Your task to perform on an android device: turn on sleep mode Image 0: 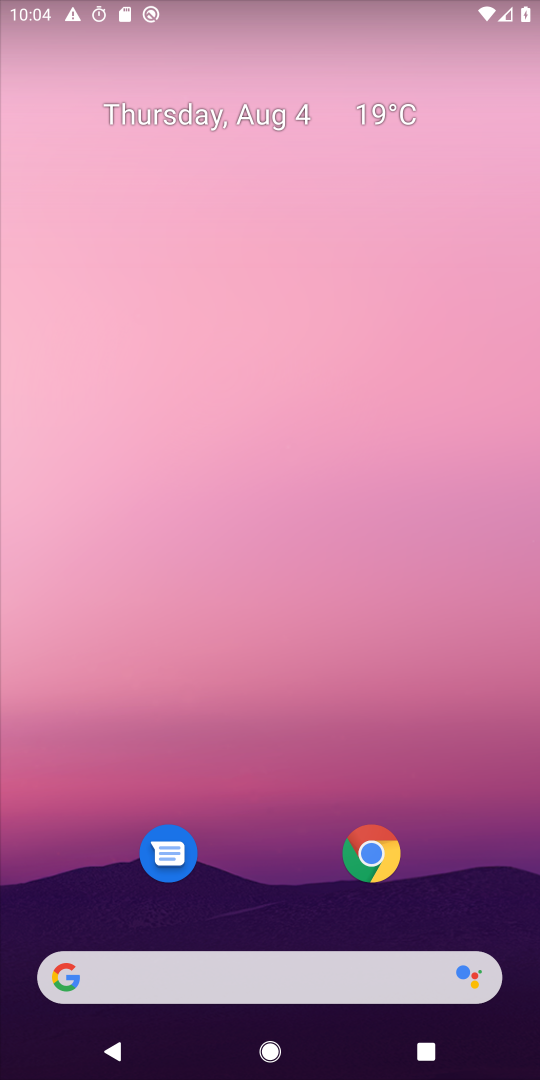
Step 0: drag from (219, 789) to (283, 100)
Your task to perform on an android device: turn on sleep mode Image 1: 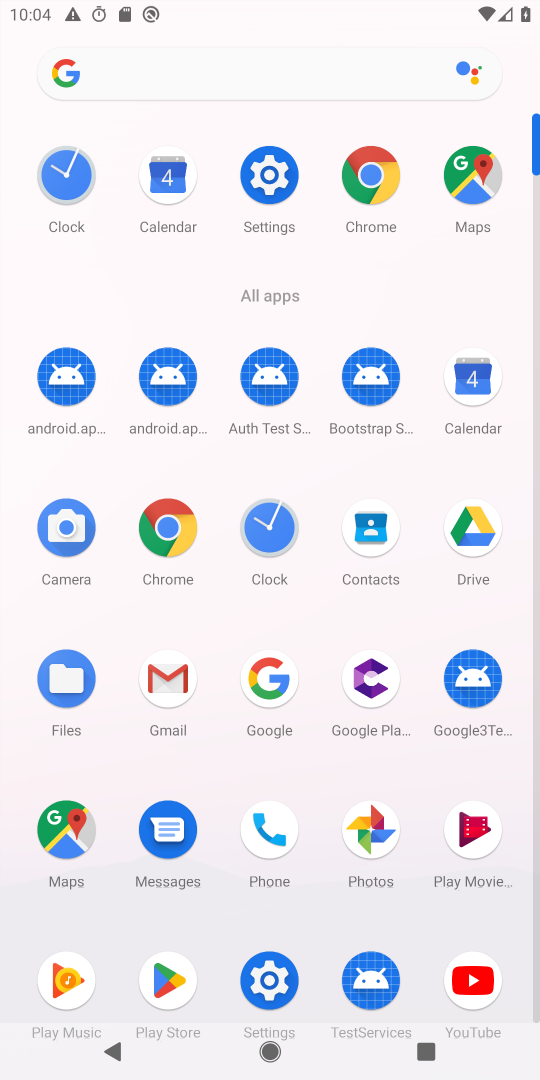
Step 1: click (284, 977)
Your task to perform on an android device: turn on sleep mode Image 2: 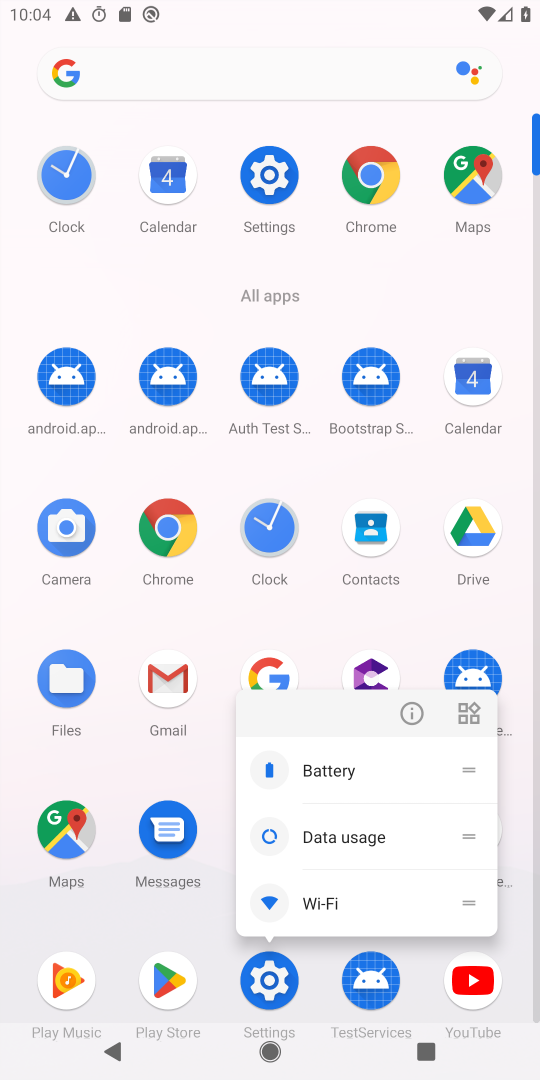
Step 2: click (281, 979)
Your task to perform on an android device: turn on sleep mode Image 3: 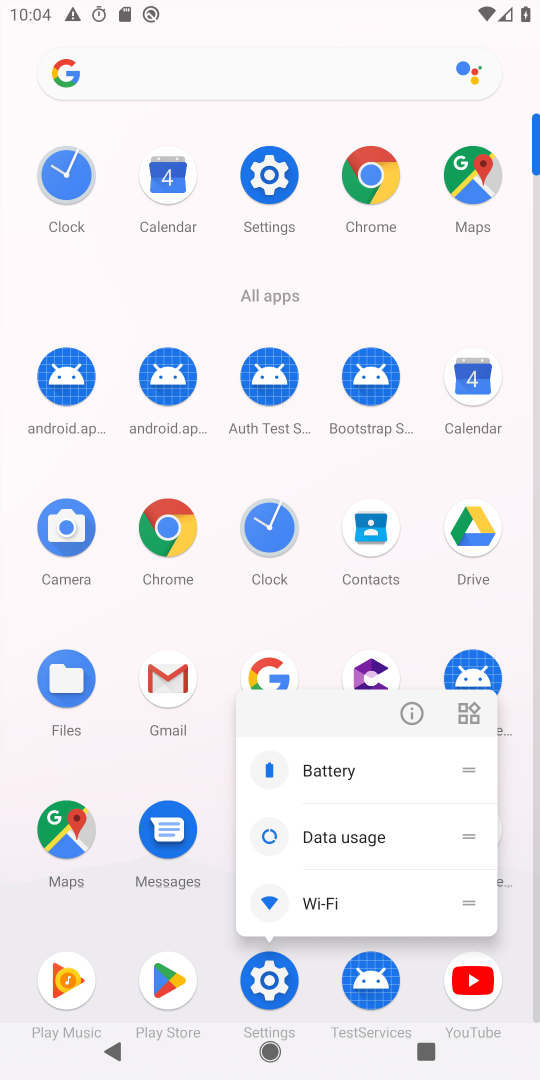
Step 3: click (237, 993)
Your task to perform on an android device: turn on sleep mode Image 4: 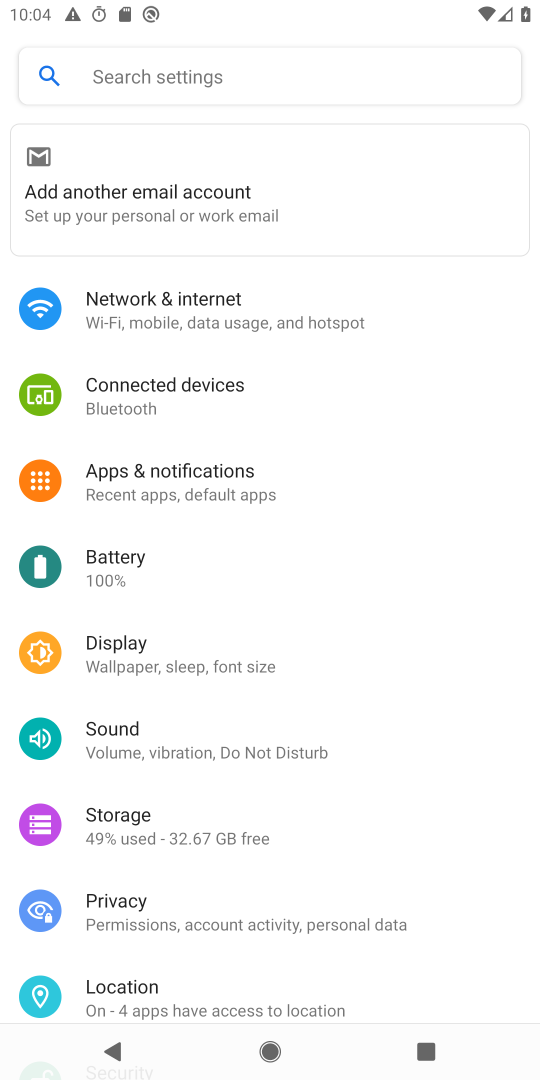
Step 4: click (256, 61)
Your task to perform on an android device: turn on sleep mode Image 5: 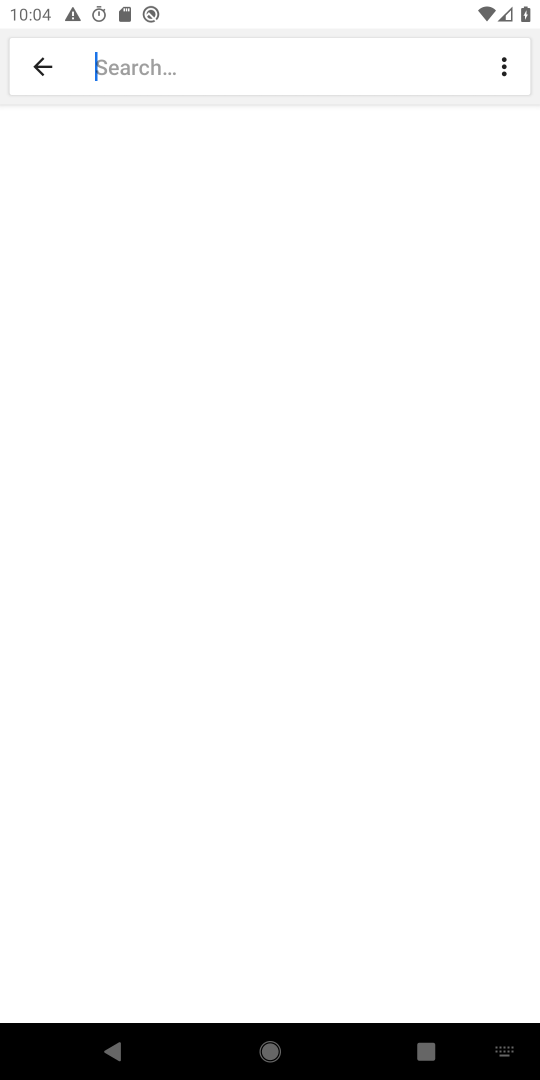
Step 5: type "sleep mode"
Your task to perform on an android device: turn on sleep mode Image 6: 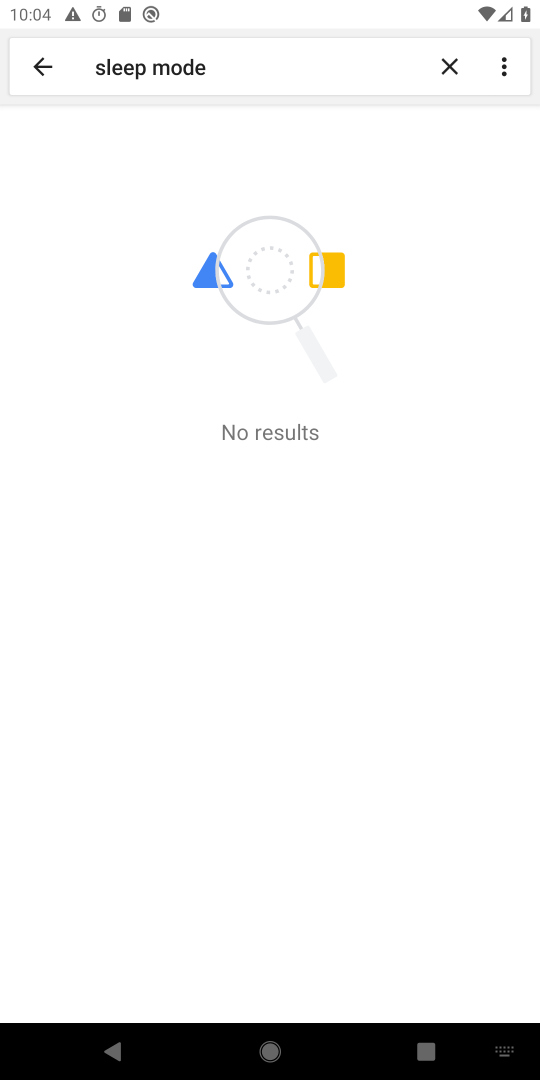
Step 6: task complete